Your task to perform on an android device: Open the web browser Image 0: 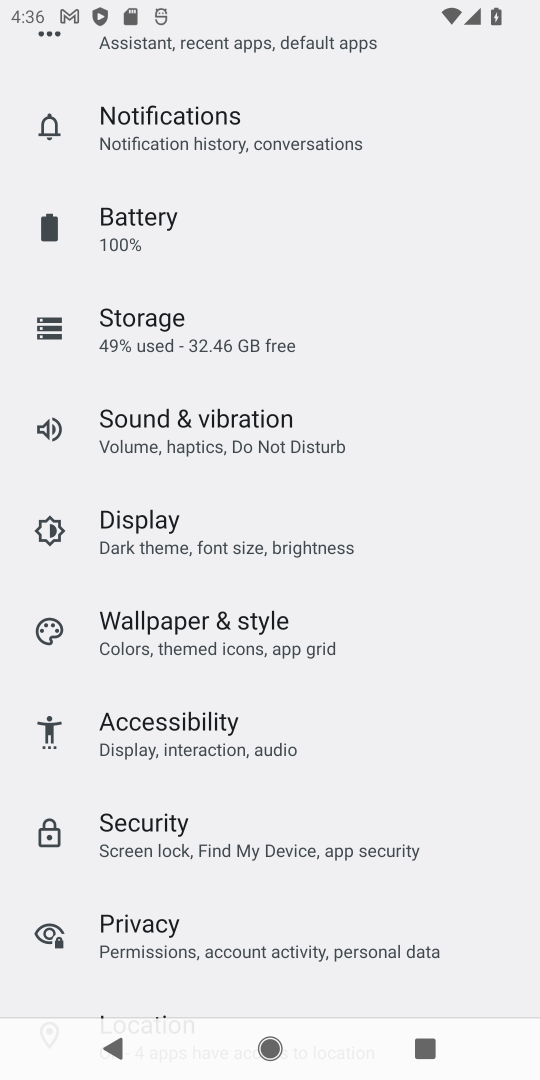
Step 0: press back button
Your task to perform on an android device: Open the web browser Image 1: 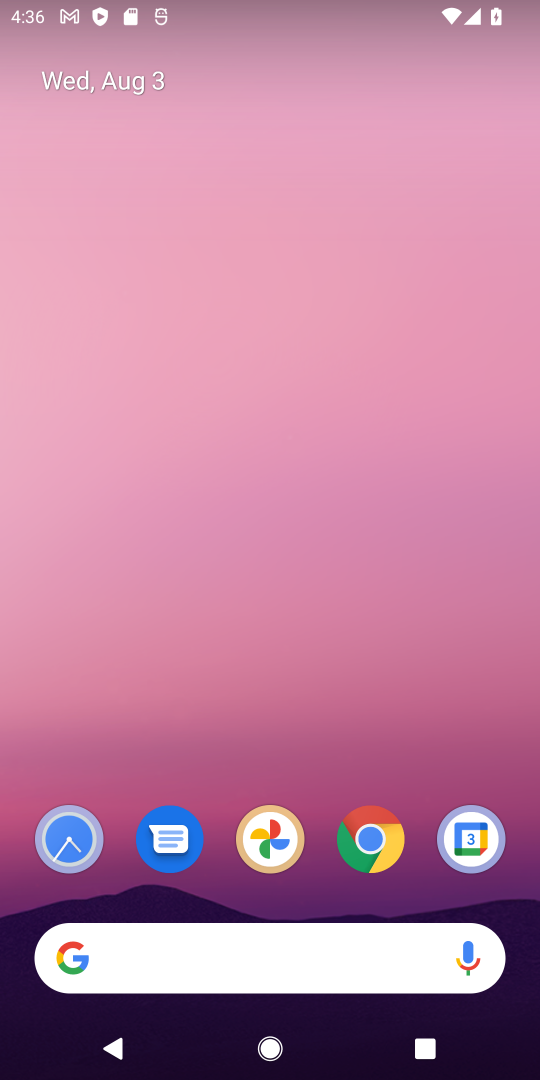
Step 1: click (367, 836)
Your task to perform on an android device: Open the web browser Image 2: 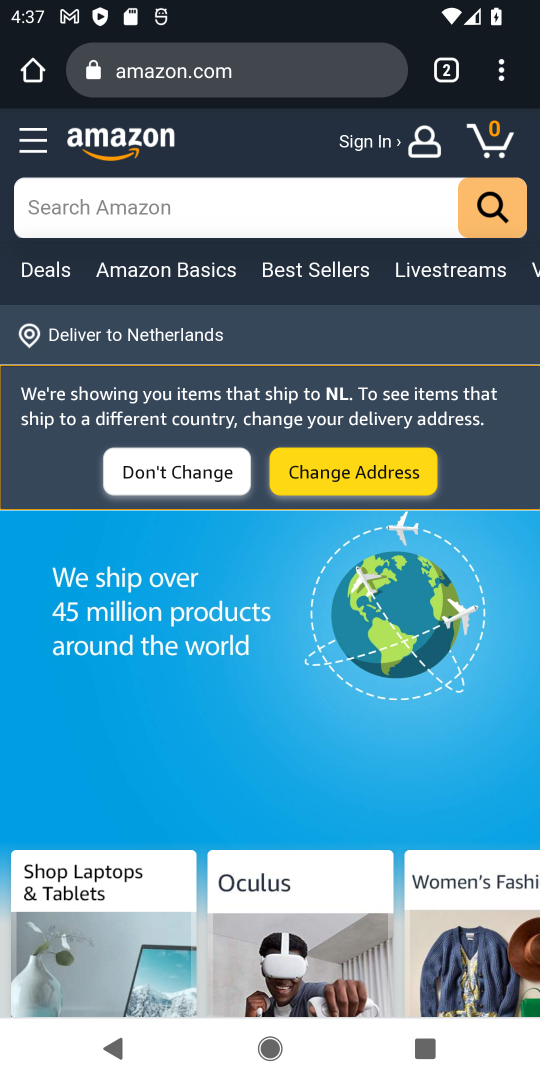
Step 2: task complete